Your task to perform on an android device: Open Chrome and go to settings Image 0: 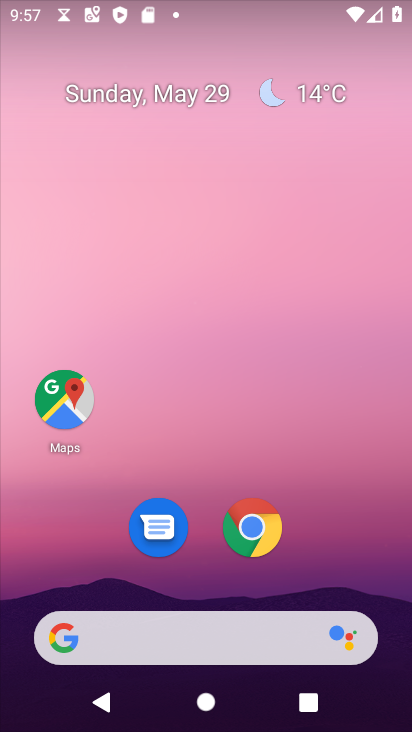
Step 0: press home button
Your task to perform on an android device: Open Chrome and go to settings Image 1: 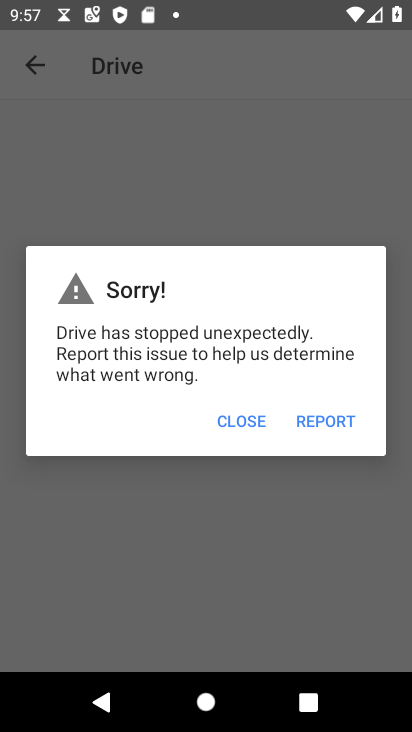
Step 1: click (286, 3)
Your task to perform on an android device: Open Chrome and go to settings Image 2: 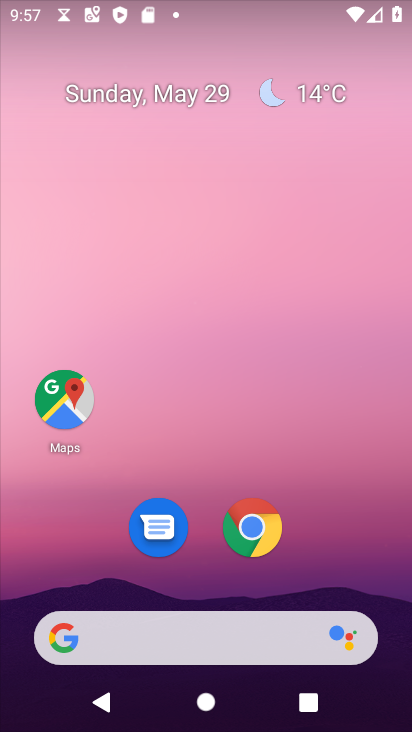
Step 2: click (252, 534)
Your task to perform on an android device: Open Chrome and go to settings Image 3: 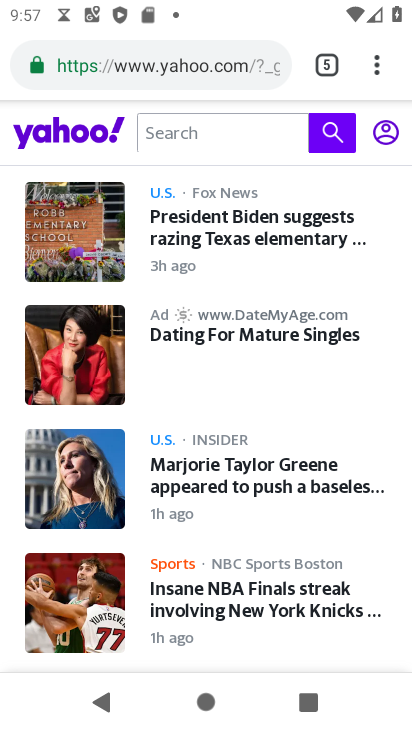
Step 3: task complete